Your task to perform on an android device: Open wifi settings Image 0: 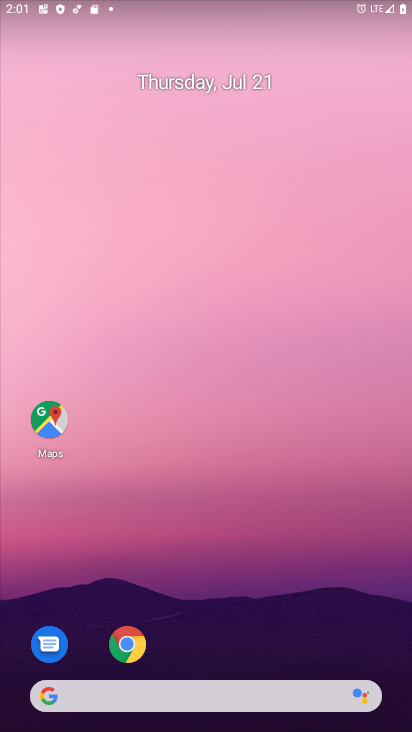
Step 0: drag from (202, 636) to (251, 297)
Your task to perform on an android device: Open wifi settings Image 1: 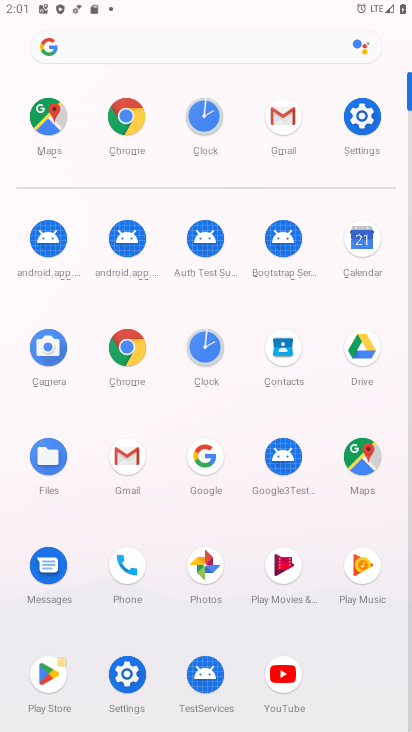
Step 1: click (382, 121)
Your task to perform on an android device: Open wifi settings Image 2: 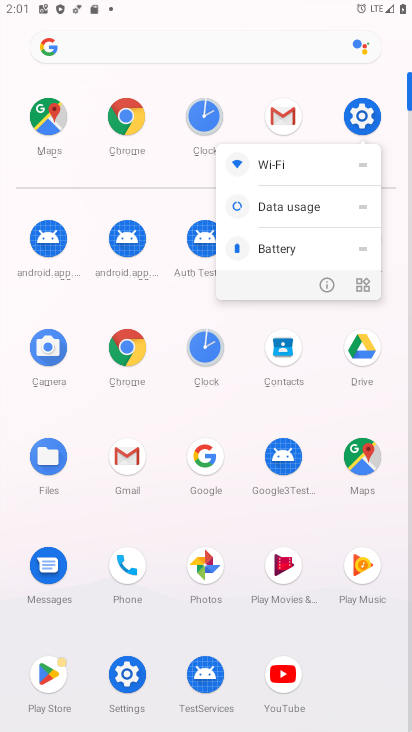
Step 2: click (371, 121)
Your task to perform on an android device: Open wifi settings Image 3: 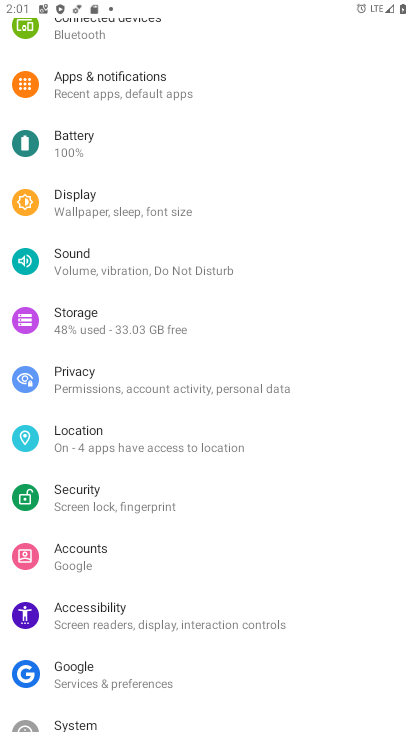
Step 3: drag from (177, 90) to (205, 376)
Your task to perform on an android device: Open wifi settings Image 4: 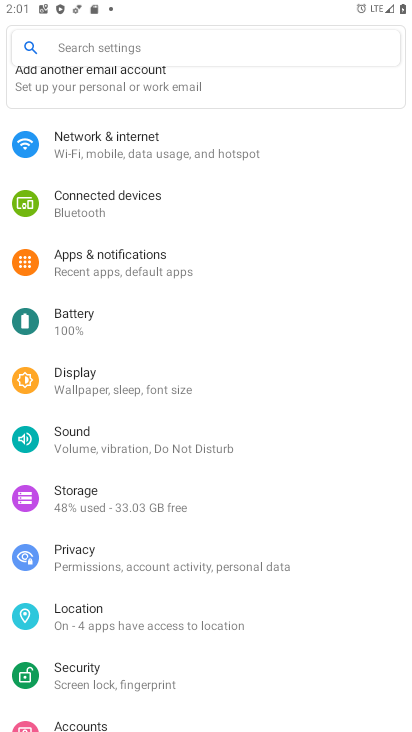
Step 4: click (118, 149)
Your task to perform on an android device: Open wifi settings Image 5: 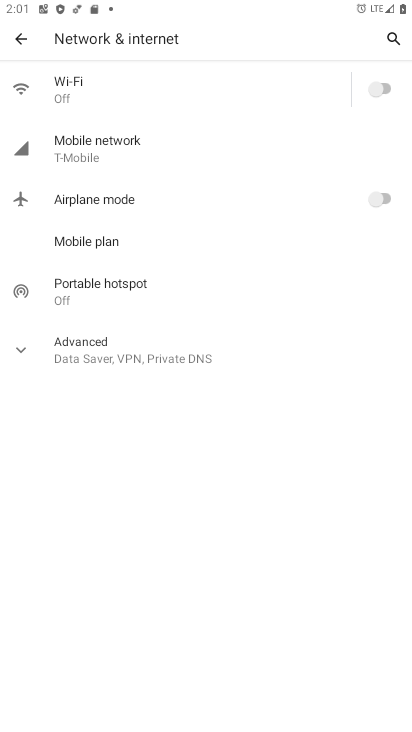
Step 5: click (133, 85)
Your task to perform on an android device: Open wifi settings Image 6: 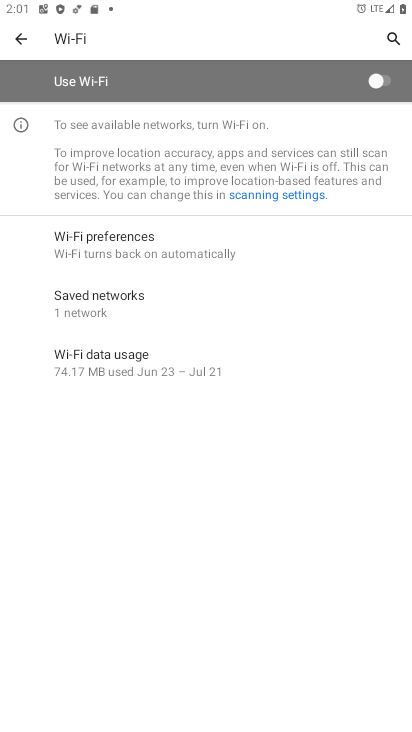
Step 6: click (383, 84)
Your task to perform on an android device: Open wifi settings Image 7: 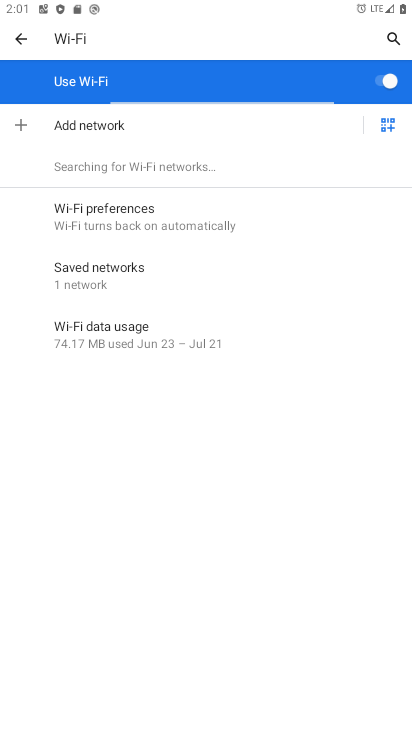
Step 7: click (392, 115)
Your task to perform on an android device: Open wifi settings Image 8: 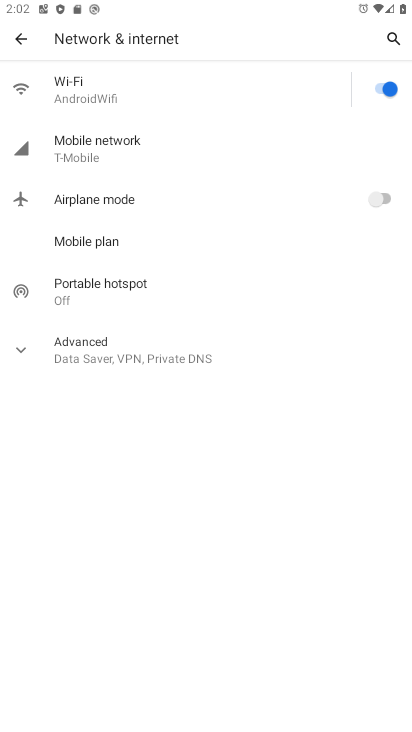
Step 8: click (77, 90)
Your task to perform on an android device: Open wifi settings Image 9: 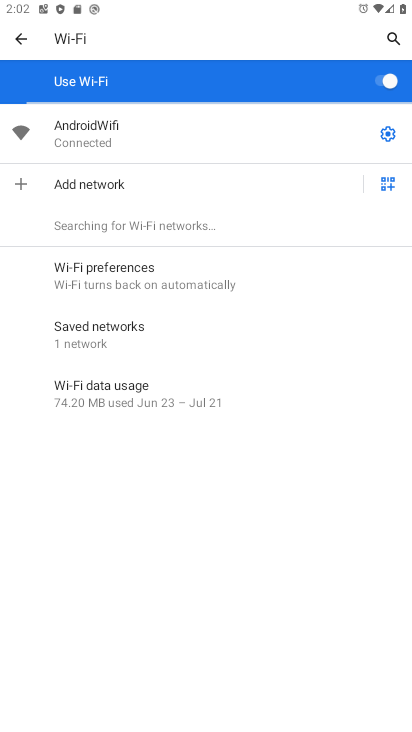
Step 9: click (381, 136)
Your task to perform on an android device: Open wifi settings Image 10: 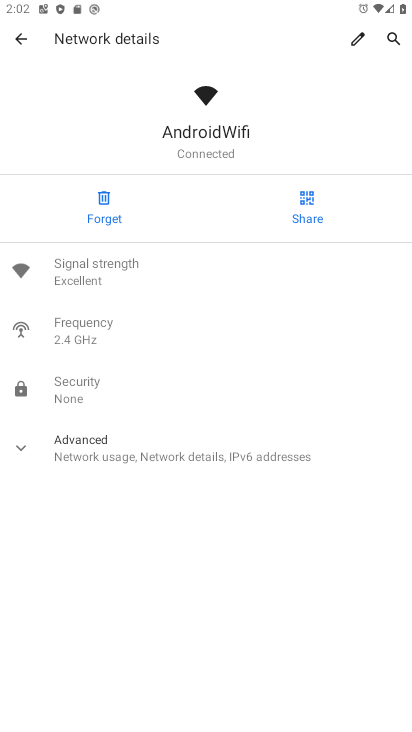
Step 10: click (183, 442)
Your task to perform on an android device: Open wifi settings Image 11: 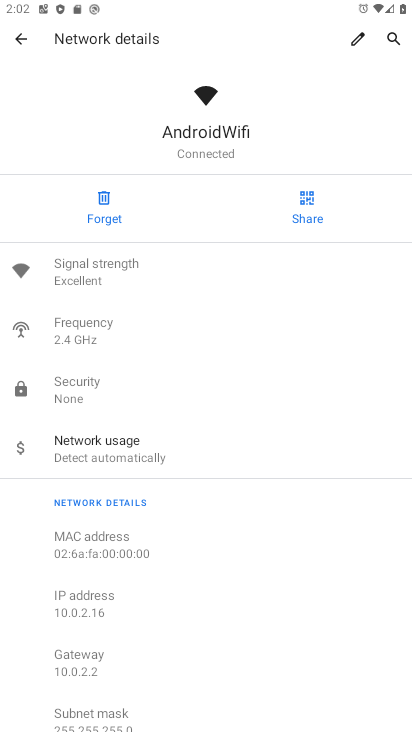
Step 11: task complete